Your task to perform on an android device: delete the emails in spam in the gmail app Image 0: 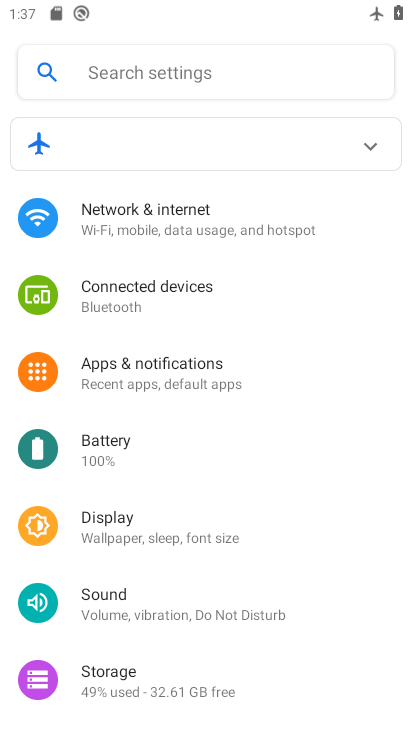
Step 0: press home button
Your task to perform on an android device: delete the emails in spam in the gmail app Image 1: 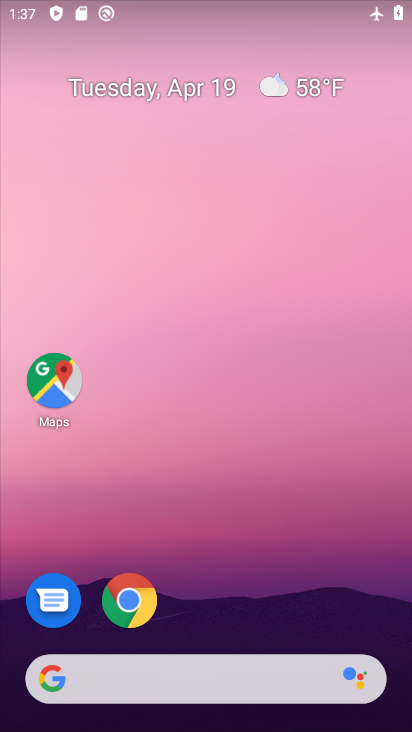
Step 1: drag from (191, 694) to (202, 236)
Your task to perform on an android device: delete the emails in spam in the gmail app Image 2: 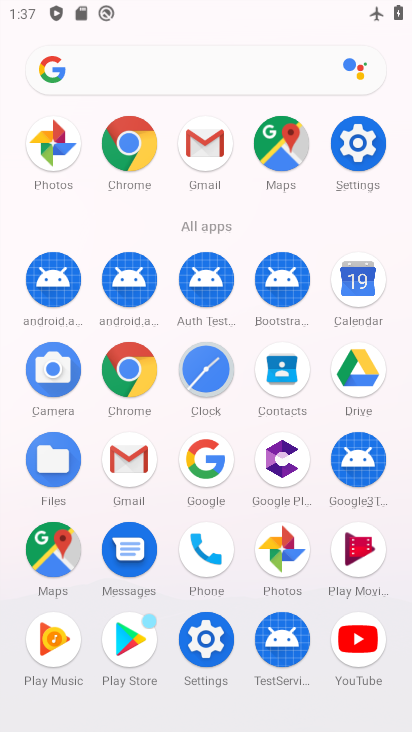
Step 2: click (203, 167)
Your task to perform on an android device: delete the emails in spam in the gmail app Image 3: 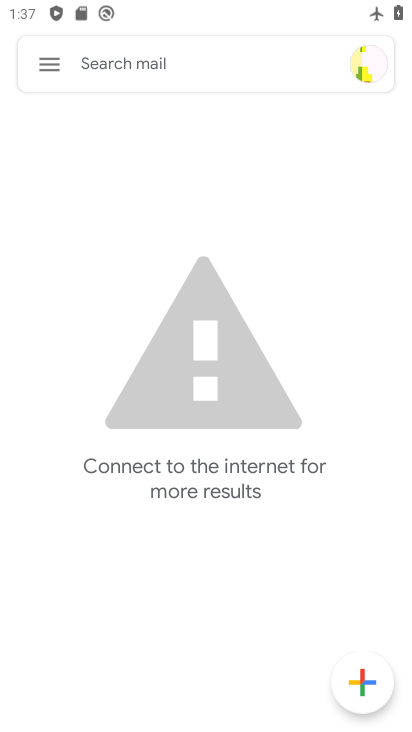
Step 3: click (53, 64)
Your task to perform on an android device: delete the emails in spam in the gmail app Image 4: 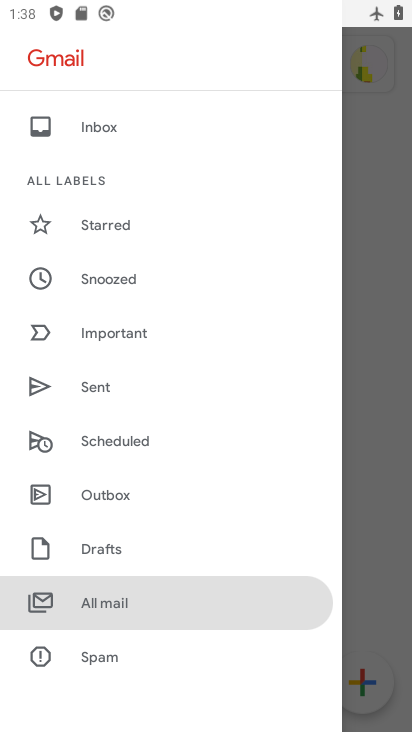
Step 4: click (87, 649)
Your task to perform on an android device: delete the emails in spam in the gmail app Image 5: 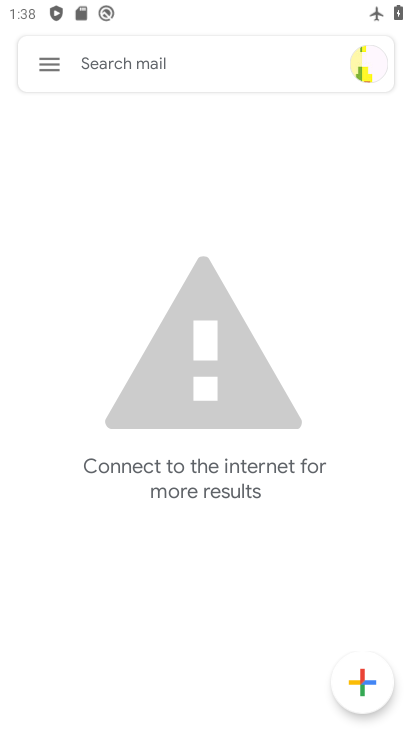
Step 5: task complete